Your task to perform on an android device: turn on bluetooth scan Image 0: 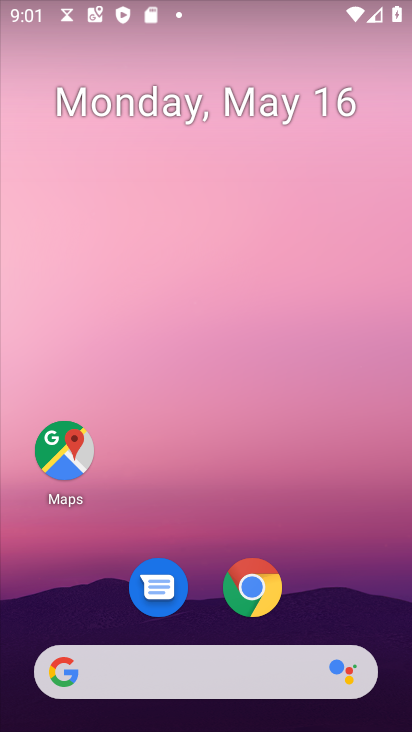
Step 0: drag from (360, 591) to (341, 100)
Your task to perform on an android device: turn on bluetooth scan Image 1: 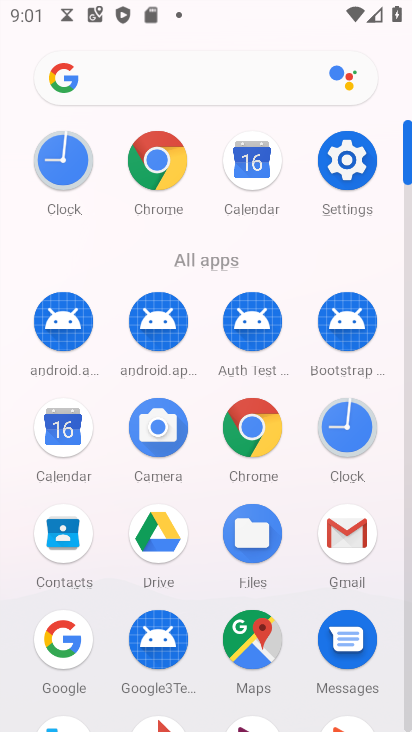
Step 1: click (340, 158)
Your task to perform on an android device: turn on bluetooth scan Image 2: 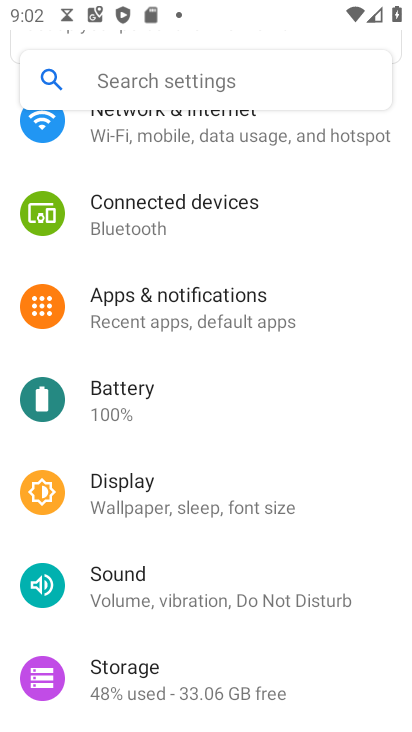
Step 2: drag from (248, 604) to (229, 304)
Your task to perform on an android device: turn on bluetooth scan Image 3: 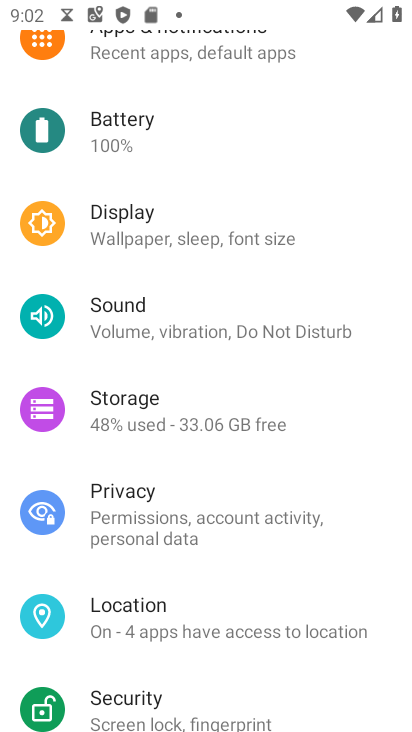
Step 3: click (206, 635)
Your task to perform on an android device: turn on bluetooth scan Image 4: 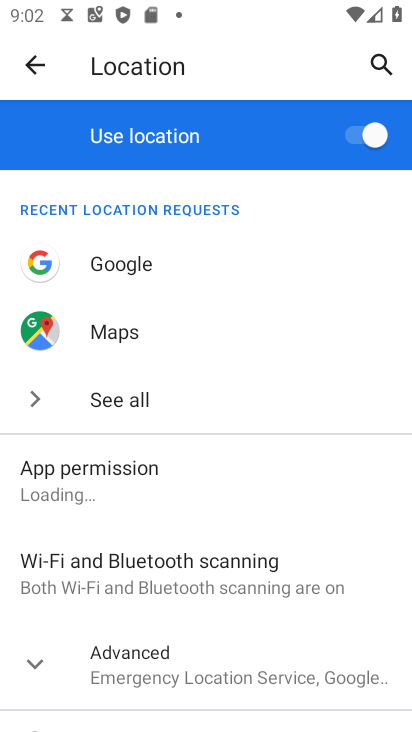
Step 4: click (284, 593)
Your task to perform on an android device: turn on bluetooth scan Image 5: 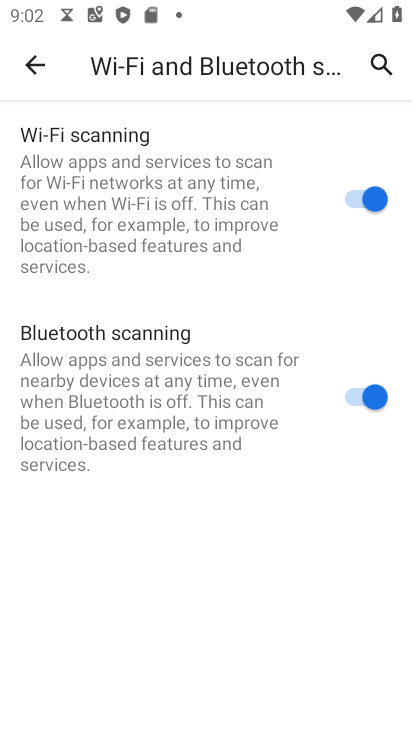
Step 5: task complete